Your task to perform on an android device: When is my next appointment? Image 0: 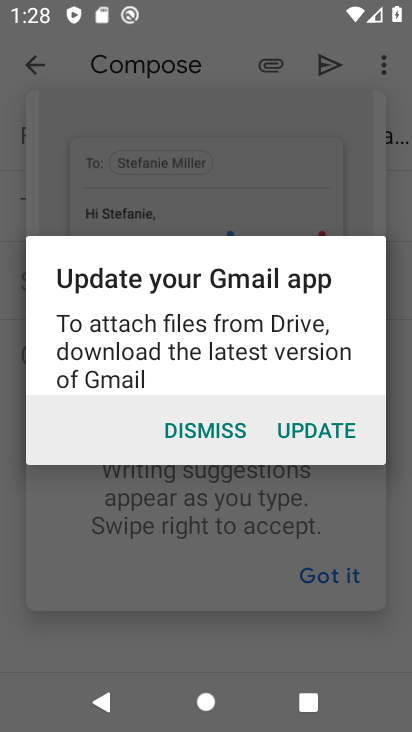
Step 0: press back button
Your task to perform on an android device: When is my next appointment? Image 1: 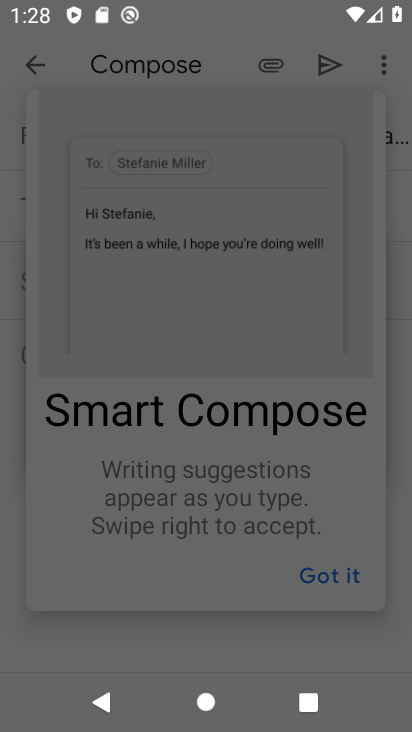
Step 1: press home button
Your task to perform on an android device: When is my next appointment? Image 2: 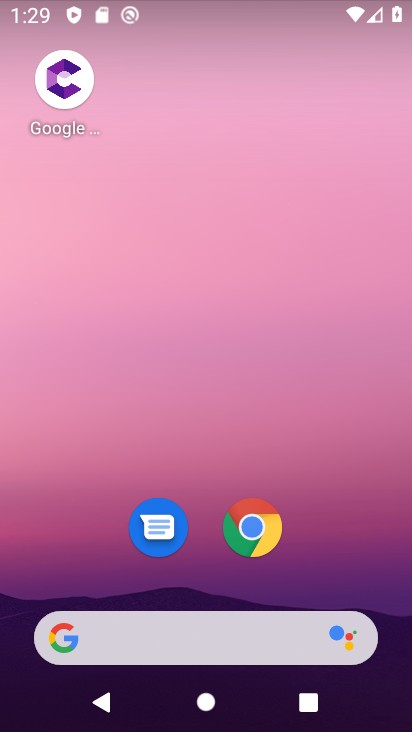
Step 2: drag from (198, 583) to (194, 176)
Your task to perform on an android device: When is my next appointment? Image 3: 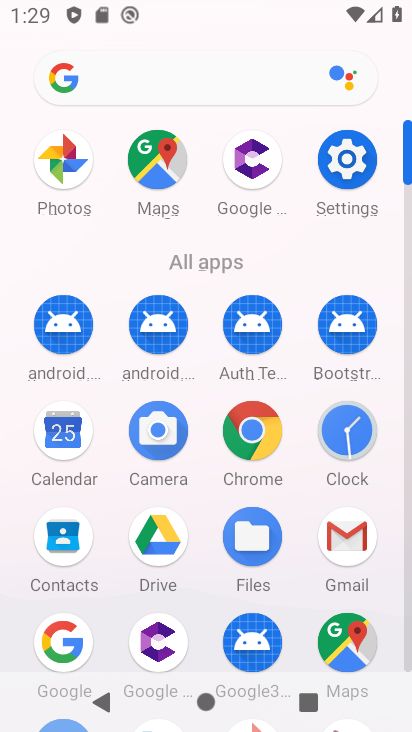
Step 3: click (63, 452)
Your task to perform on an android device: When is my next appointment? Image 4: 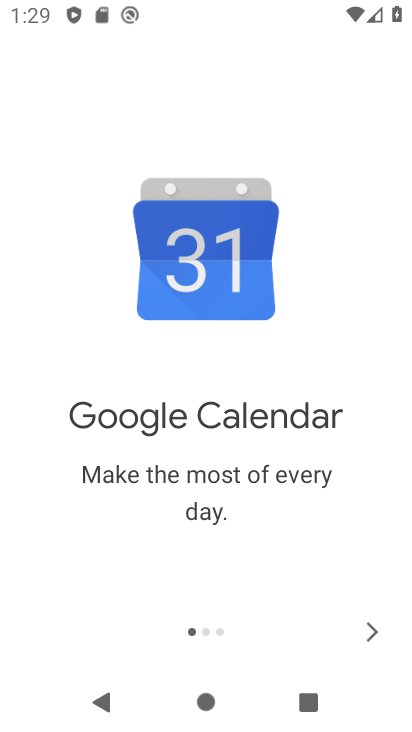
Step 4: click (372, 642)
Your task to perform on an android device: When is my next appointment? Image 5: 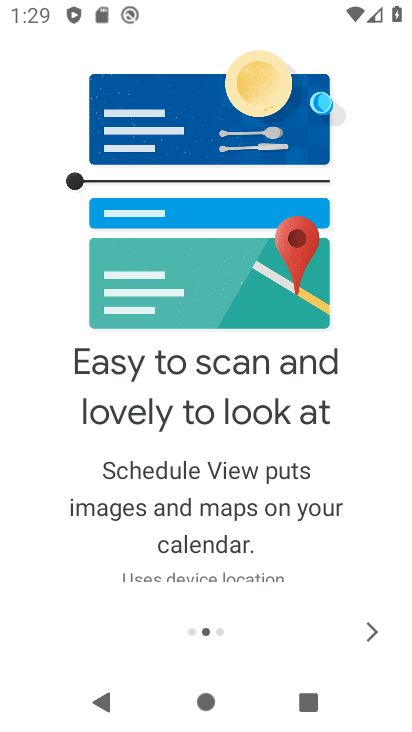
Step 5: click (368, 642)
Your task to perform on an android device: When is my next appointment? Image 6: 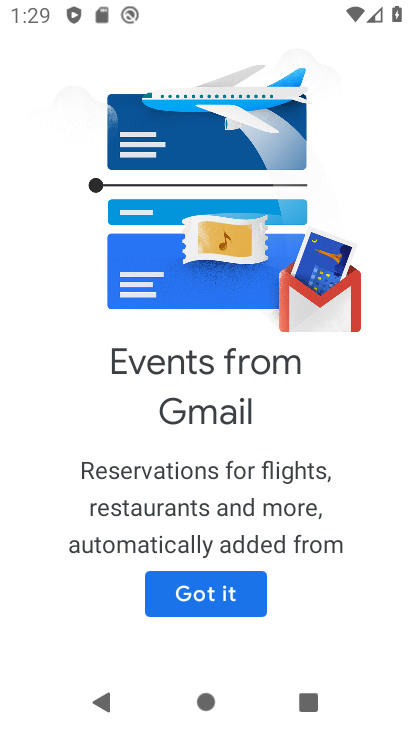
Step 6: click (248, 591)
Your task to perform on an android device: When is my next appointment? Image 7: 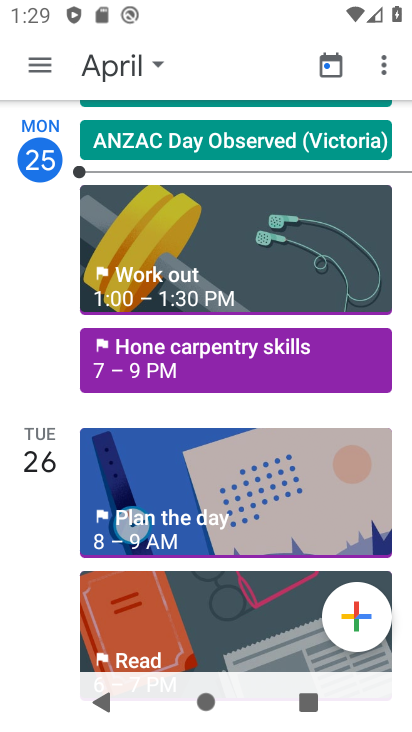
Step 7: click (149, 60)
Your task to perform on an android device: When is my next appointment? Image 8: 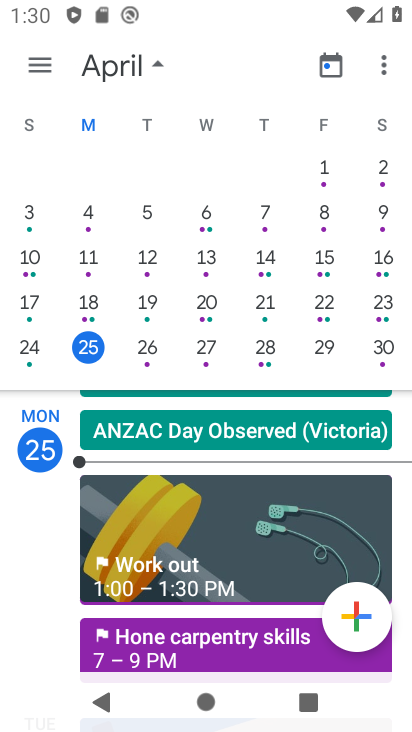
Step 8: click (135, 353)
Your task to perform on an android device: When is my next appointment? Image 9: 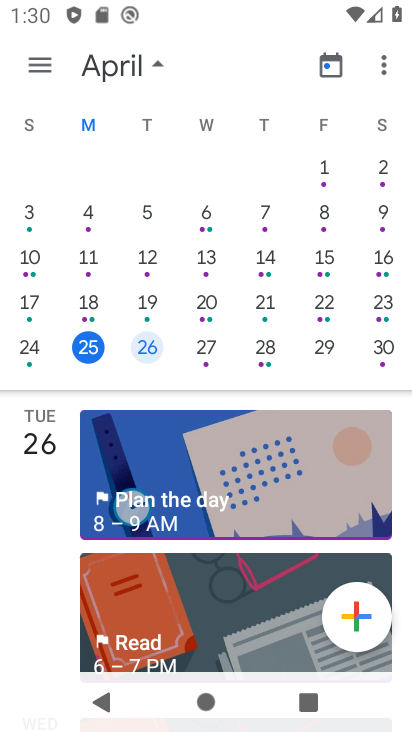
Step 9: click (201, 361)
Your task to perform on an android device: When is my next appointment? Image 10: 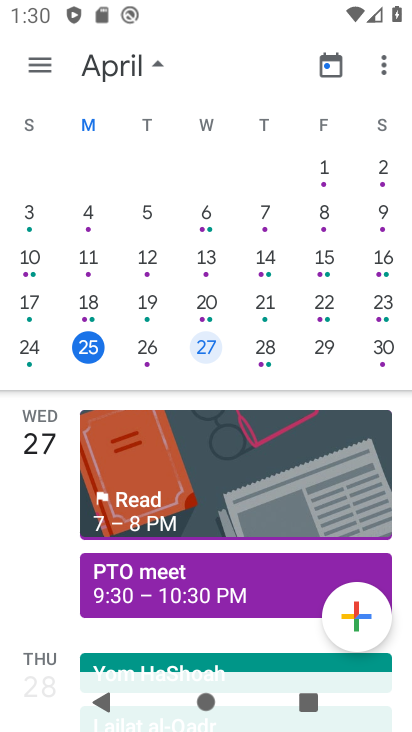
Step 10: click (272, 360)
Your task to perform on an android device: When is my next appointment? Image 11: 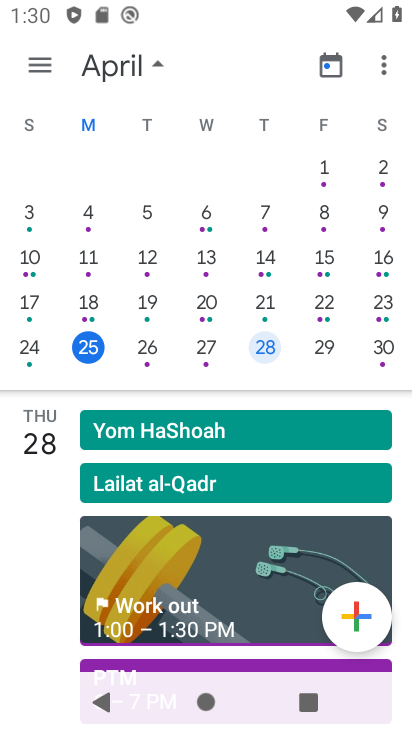
Step 11: click (315, 357)
Your task to perform on an android device: When is my next appointment? Image 12: 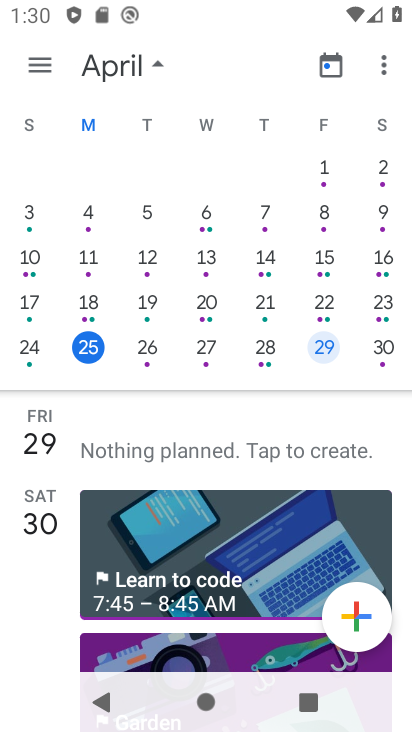
Step 12: click (396, 351)
Your task to perform on an android device: When is my next appointment? Image 13: 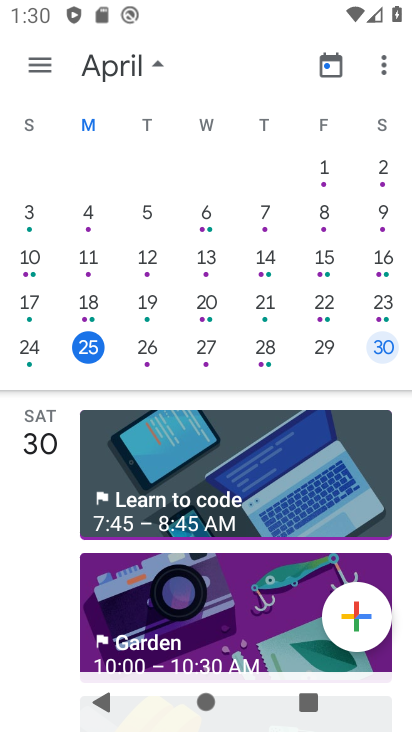
Step 13: task complete